Your task to perform on an android device: open chrome privacy settings Image 0: 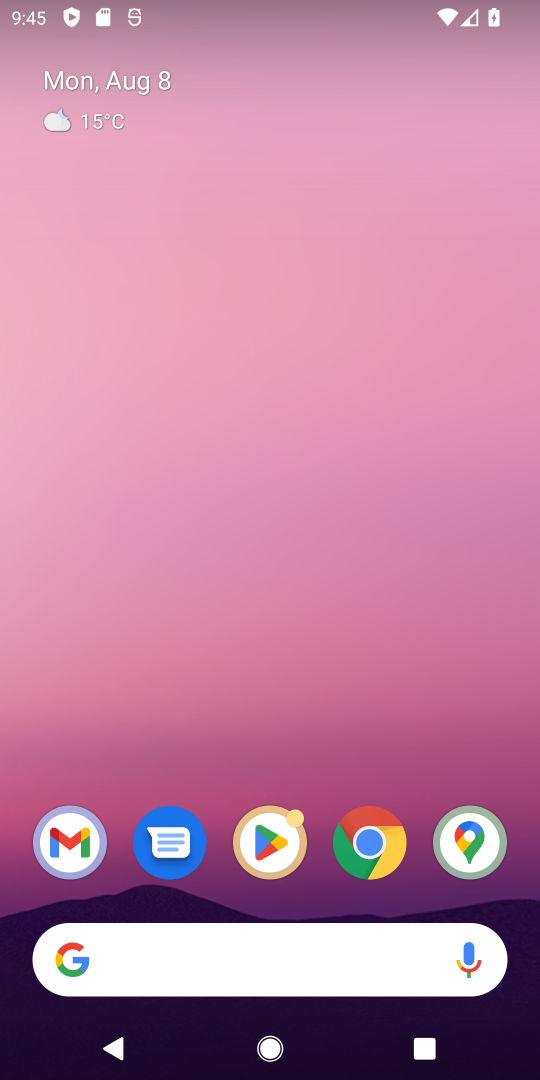
Step 0: click (375, 842)
Your task to perform on an android device: open chrome privacy settings Image 1: 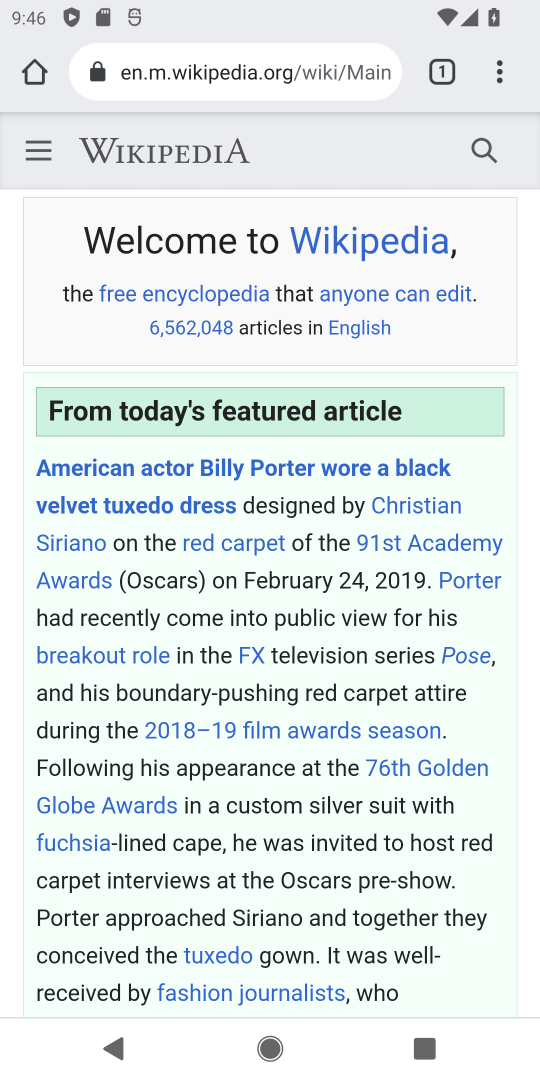
Step 1: click (495, 74)
Your task to perform on an android device: open chrome privacy settings Image 2: 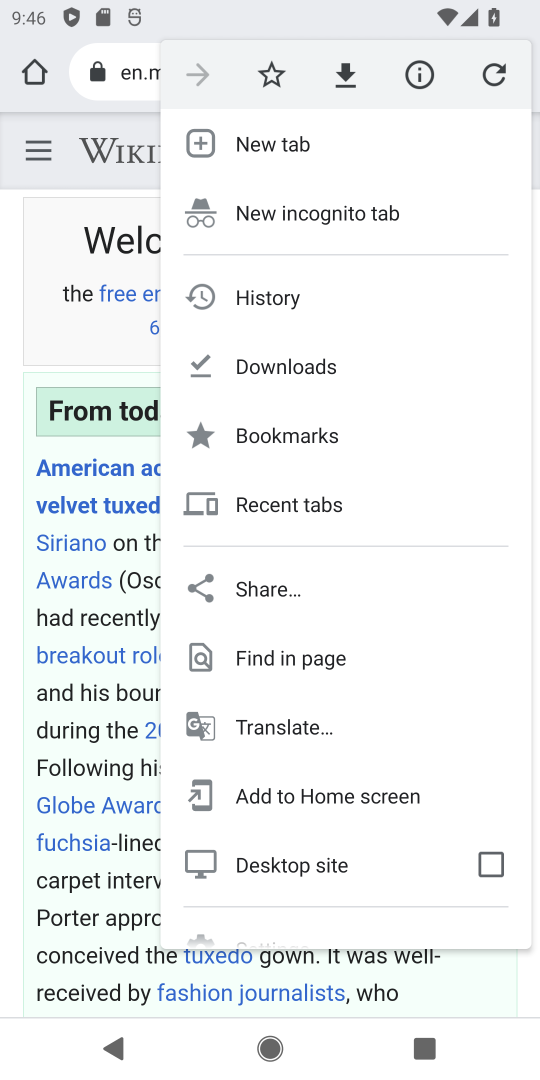
Step 2: drag from (368, 598) to (338, 330)
Your task to perform on an android device: open chrome privacy settings Image 3: 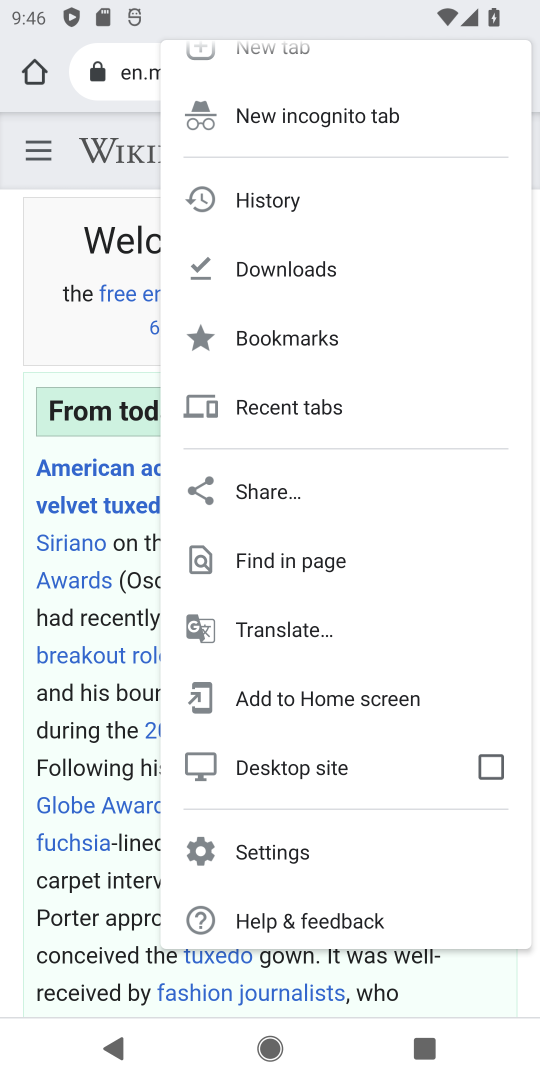
Step 3: click (313, 853)
Your task to perform on an android device: open chrome privacy settings Image 4: 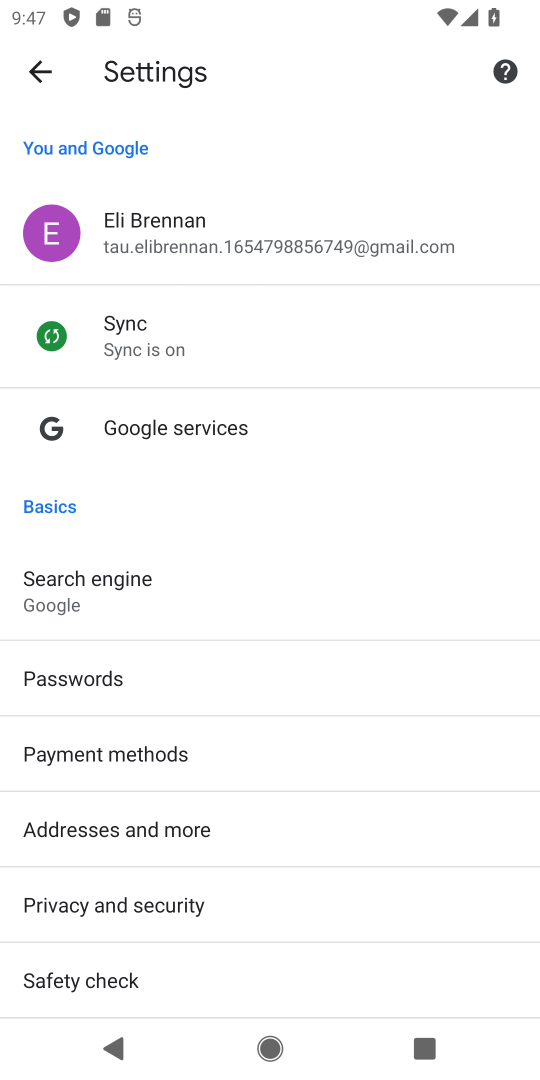
Step 4: click (270, 909)
Your task to perform on an android device: open chrome privacy settings Image 5: 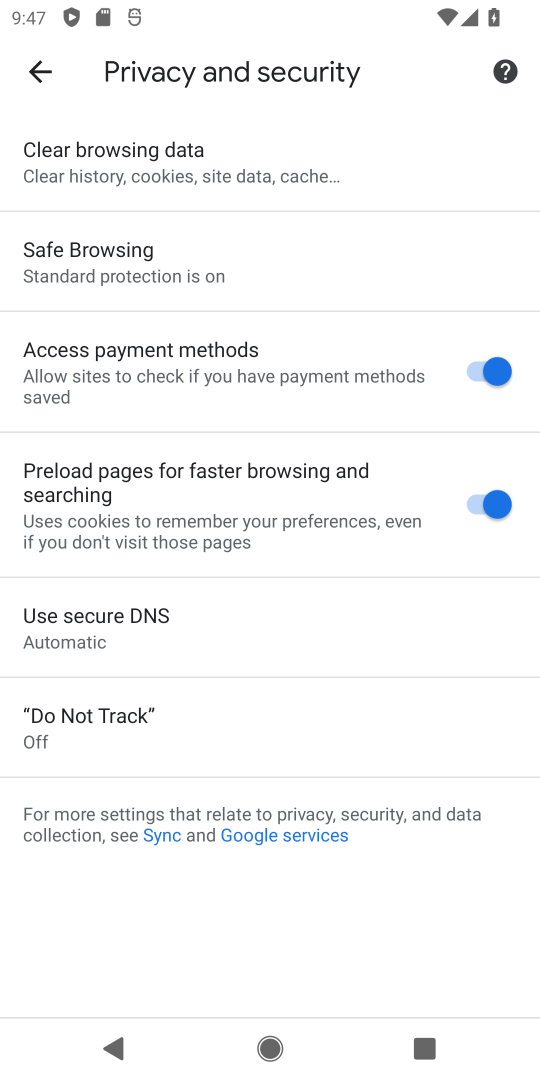
Step 5: task complete